Your task to perform on an android device: Open Google Chrome and click the shortcut for Amazon.com Image 0: 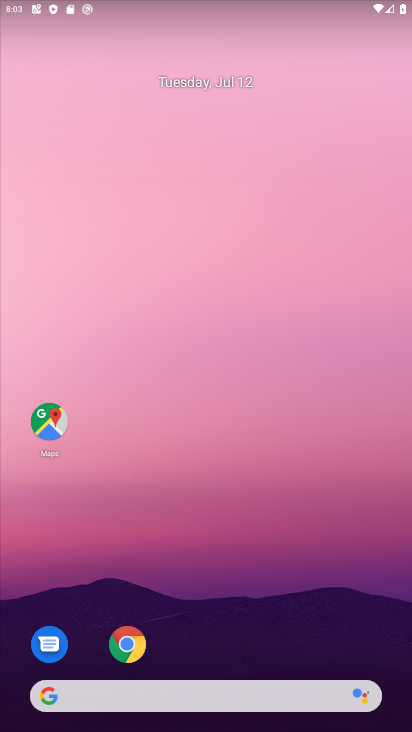
Step 0: drag from (178, 635) to (305, 14)
Your task to perform on an android device: Open Google Chrome and click the shortcut for Amazon.com Image 1: 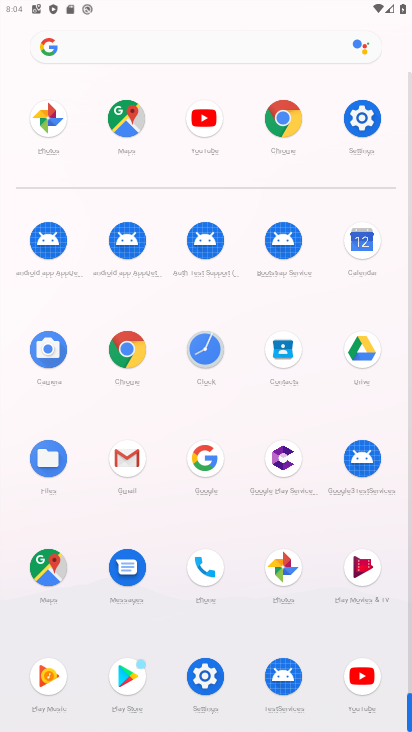
Step 1: click (126, 347)
Your task to perform on an android device: Open Google Chrome and click the shortcut for Amazon.com Image 2: 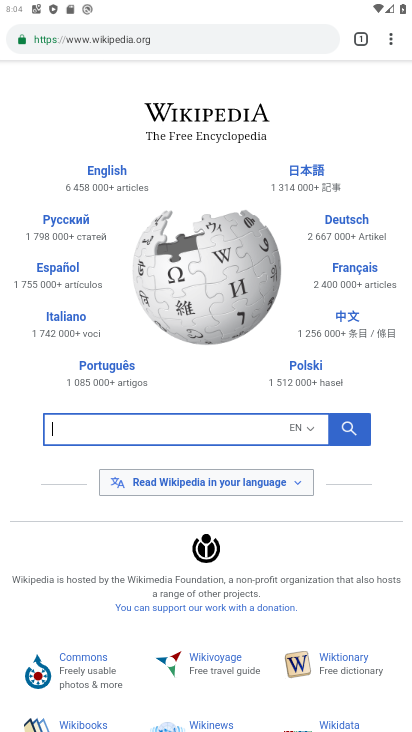
Step 2: drag from (209, 103) to (323, 703)
Your task to perform on an android device: Open Google Chrome and click the shortcut for Amazon.com Image 3: 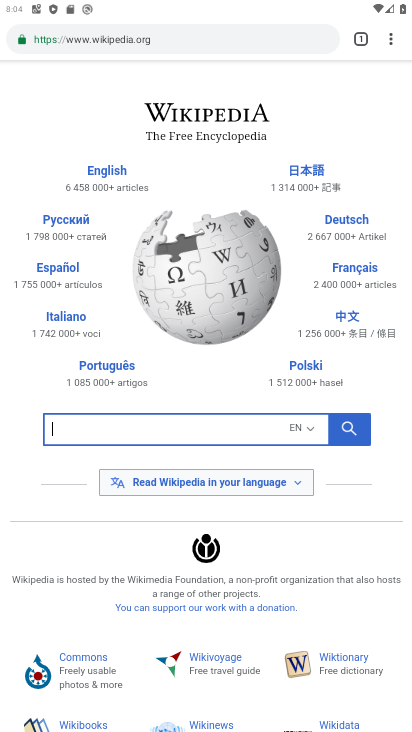
Step 3: drag from (289, 52) to (264, 557)
Your task to perform on an android device: Open Google Chrome and click the shortcut for Amazon.com Image 4: 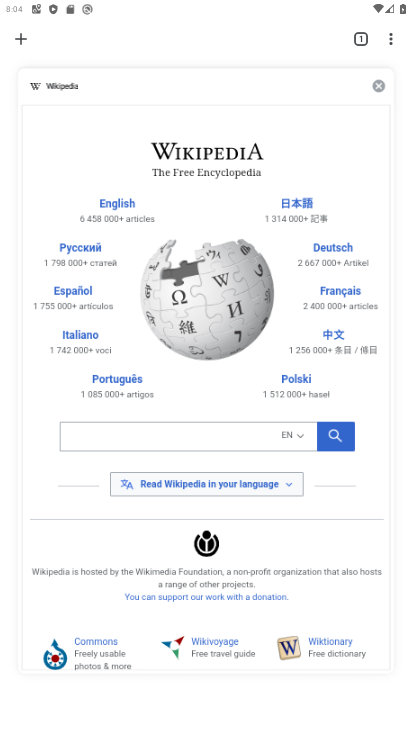
Step 4: click (24, 41)
Your task to perform on an android device: Open Google Chrome and click the shortcut for Amazon.com Image 5: 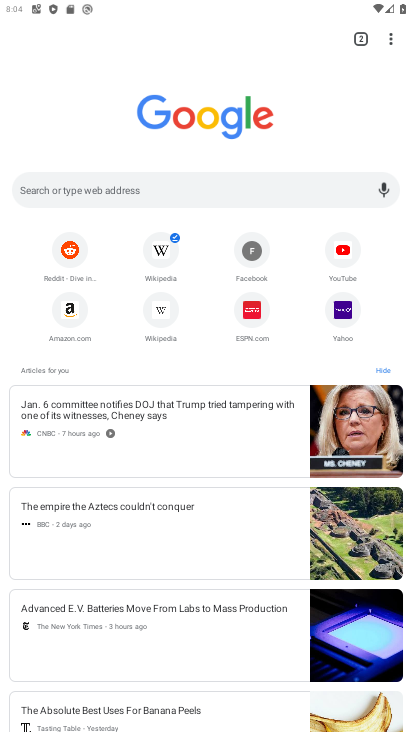
Step 5: click (72, 312)
Your task to perform on an android device: Open Google Chrome and click the shortcut for Amazon.com Image 6: 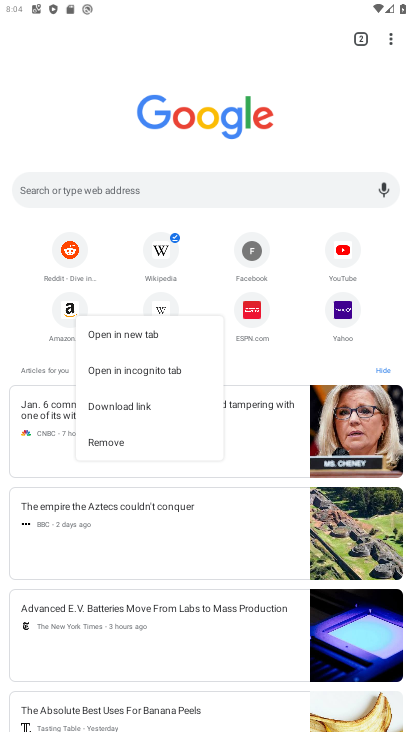
Step 6: click (67, 311)
Your task to perform on an android device: Open Google Chrome and click the shortcut for Amazon.com Image 7: 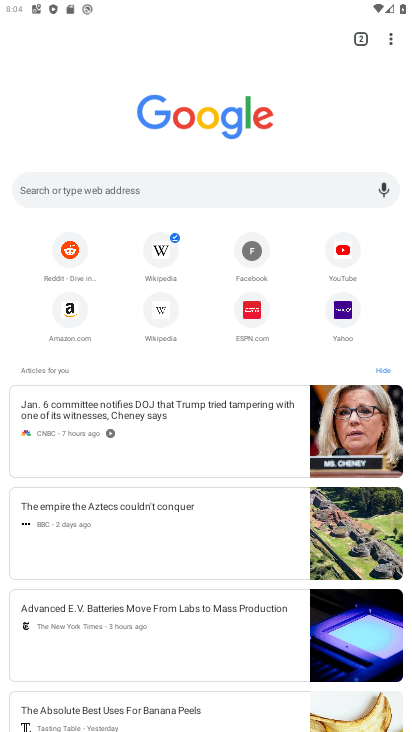
Step 7: click (67, 311)
Your task to perform on an android device: Open Google Chrome and click the shortcut for Amazon.com Image 8: 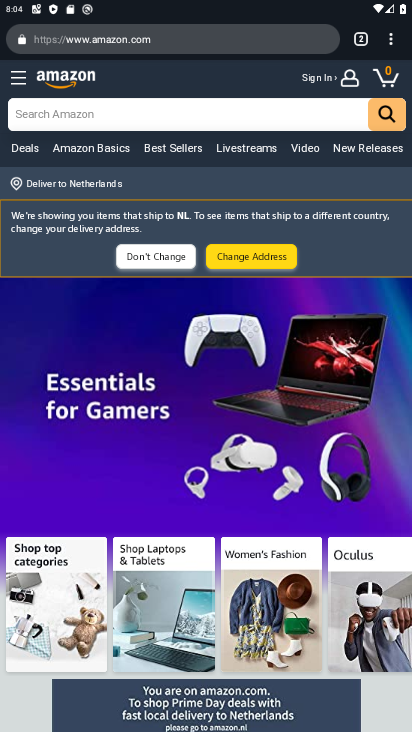
Step 8: task complete